Your task to perform on an android device: turn on bluetooth scan Image 0: 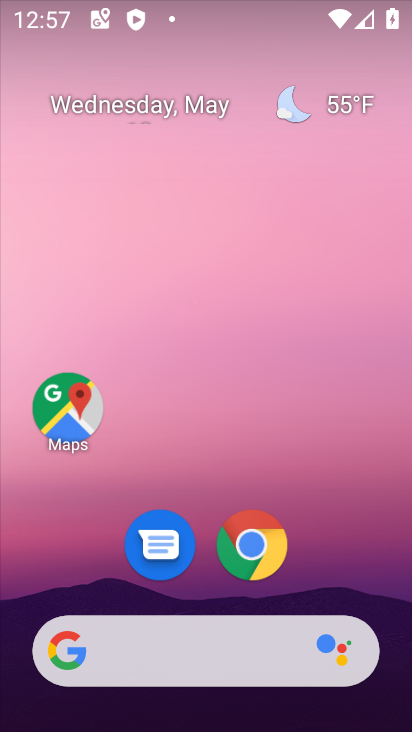
Step 0: drag from (348, 550) to (359, 38)
Your task to perform on an android device: turn on bluetooth scan Image 1: 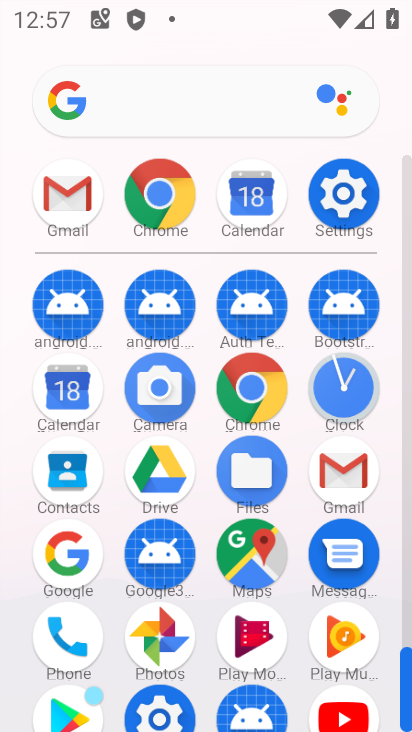
Step 1: click (328, 202)
Your task to perform on an android device: turn on bluetooth scan Image 2: 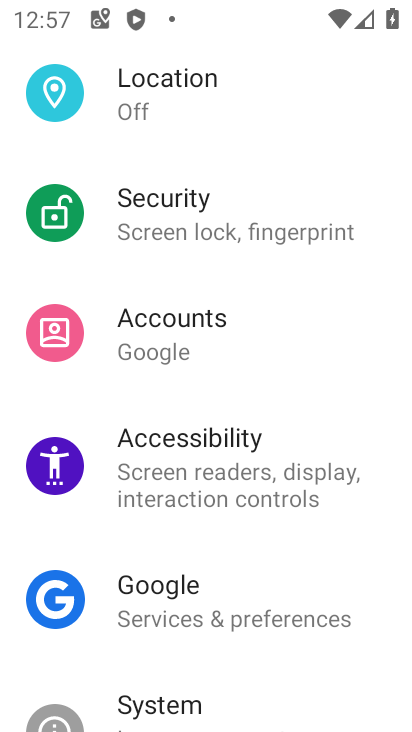
Step 2: click (195, 91)
Your task to perform on an android device: turn on bluetooth scan Image 3: 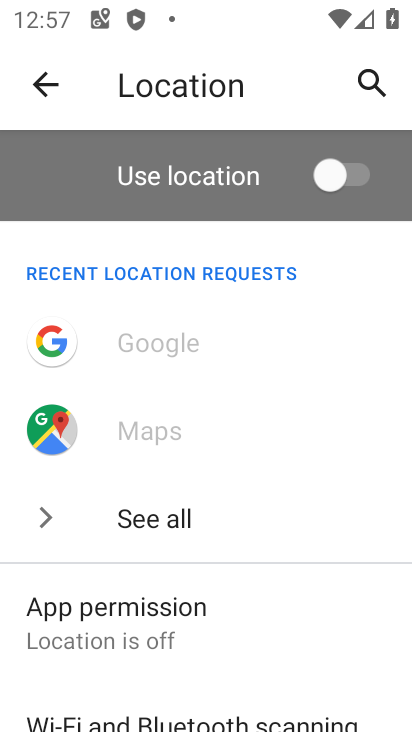
Step 3: drag from (211, 631) to (192, 295)
Your task to perform on an android device: turn on bluetooth scan Image 4: 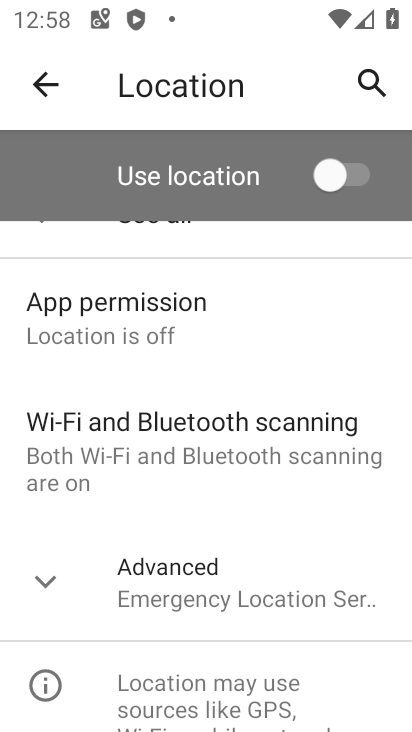
Step 4: click (182, 452)
Your task to perform on an android device: turn on bluetooth scan Image 5: 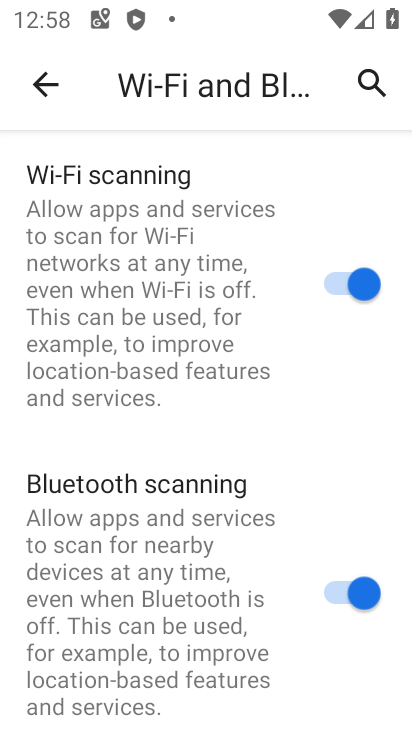
Step 5: task complete